Your task to perform on an android device: find snoozed emails in the gmail app Image 0: 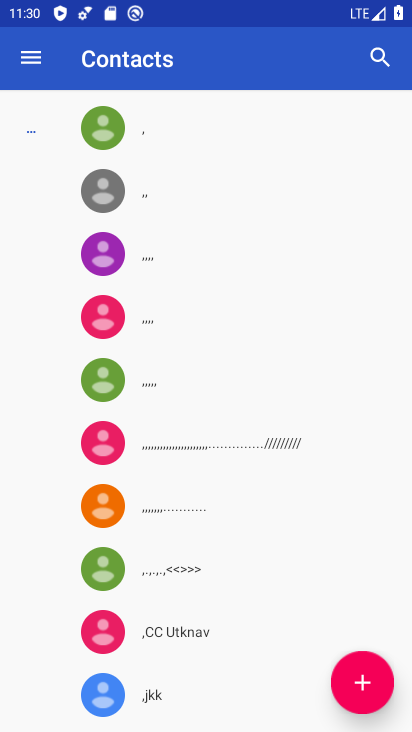
Step 0: press home button
Your task to perform on an android device: find snoozed emails in the gmail app Image 1: 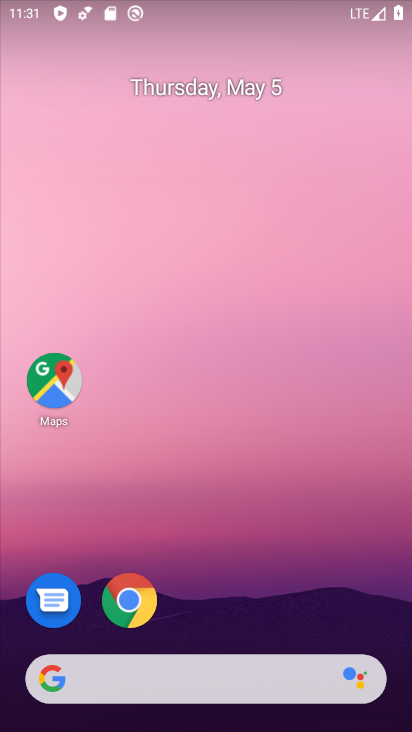
Step 1: drag from (333, 608) to (277, 0)
Your task to perform on an android device: find snoozed emails in the gmail app Image 2: 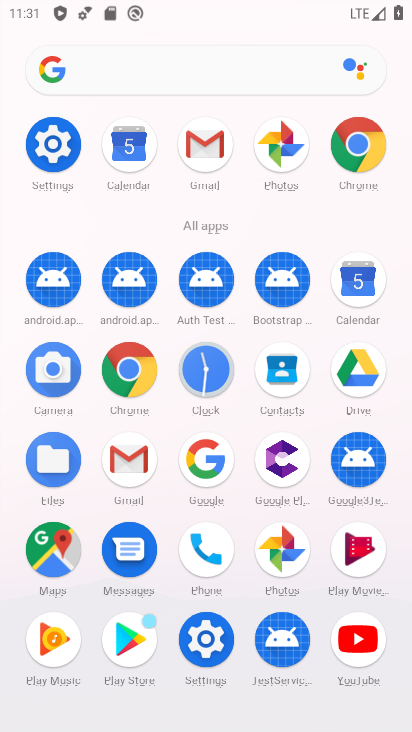
Step 2: click (131, 472)
Your task to perform on an android device: find snoozed emails in the gmail app Image 3: 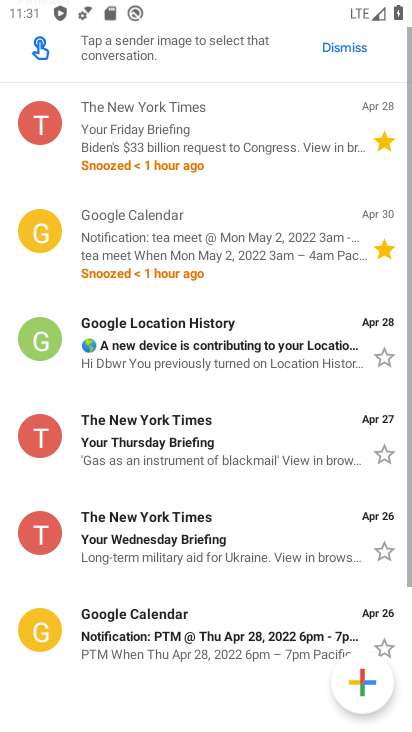
Step 3: drag from (65, 85) to (159, 511)
Your task to perform on an android device: find snoozed emails in the gmail app Image 4: 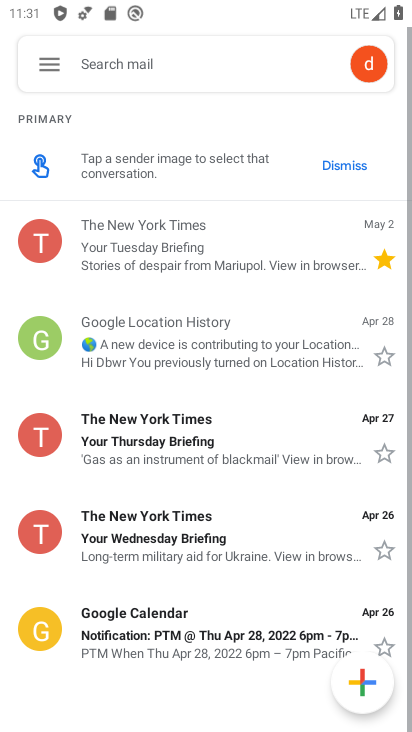
Step 4: click (42, 59)
Your task to perform on an android device: find snoozed emails in the gmail app Image 5: 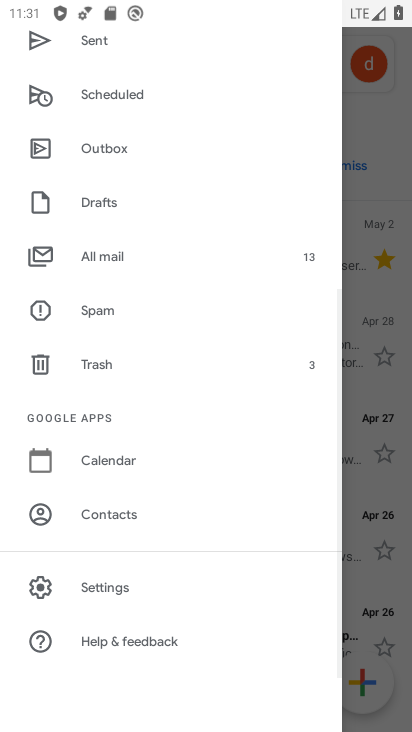
Step 5: drag from (115, 123) to (142, 614)
Your task to perform on an android device: find snoozed emails in the gmail app Image 6: 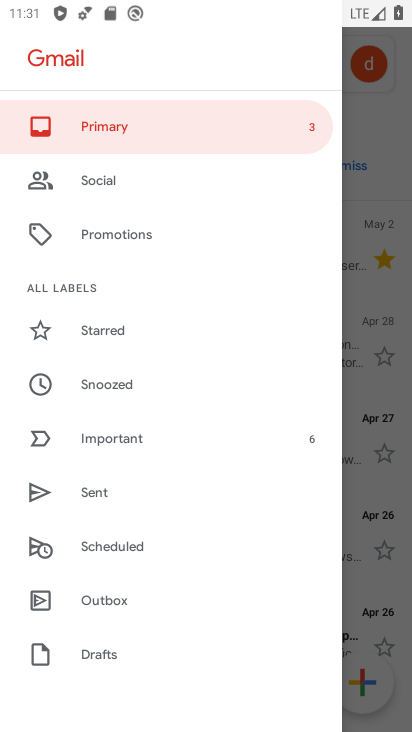
Step 6: click (104, 386)
Your task to perform on an android device: find snoozed emails in the gmail app Image 7: 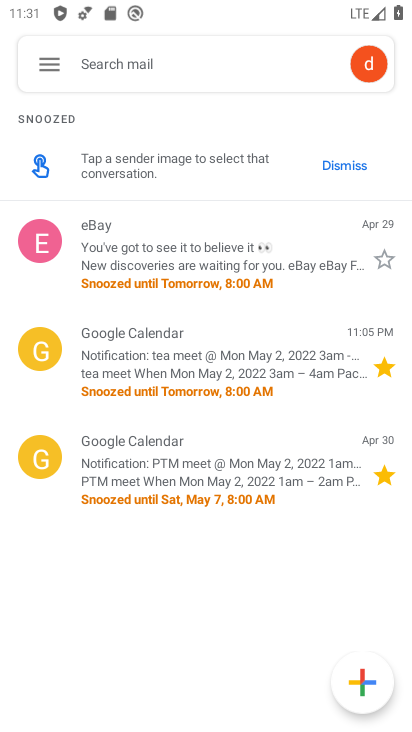
Step 7: task complete